Your task to perform on an android device: Clear the cart on costco.com. Add "logitech g502" to the cart on costco.com, then select checkout. Image 0: 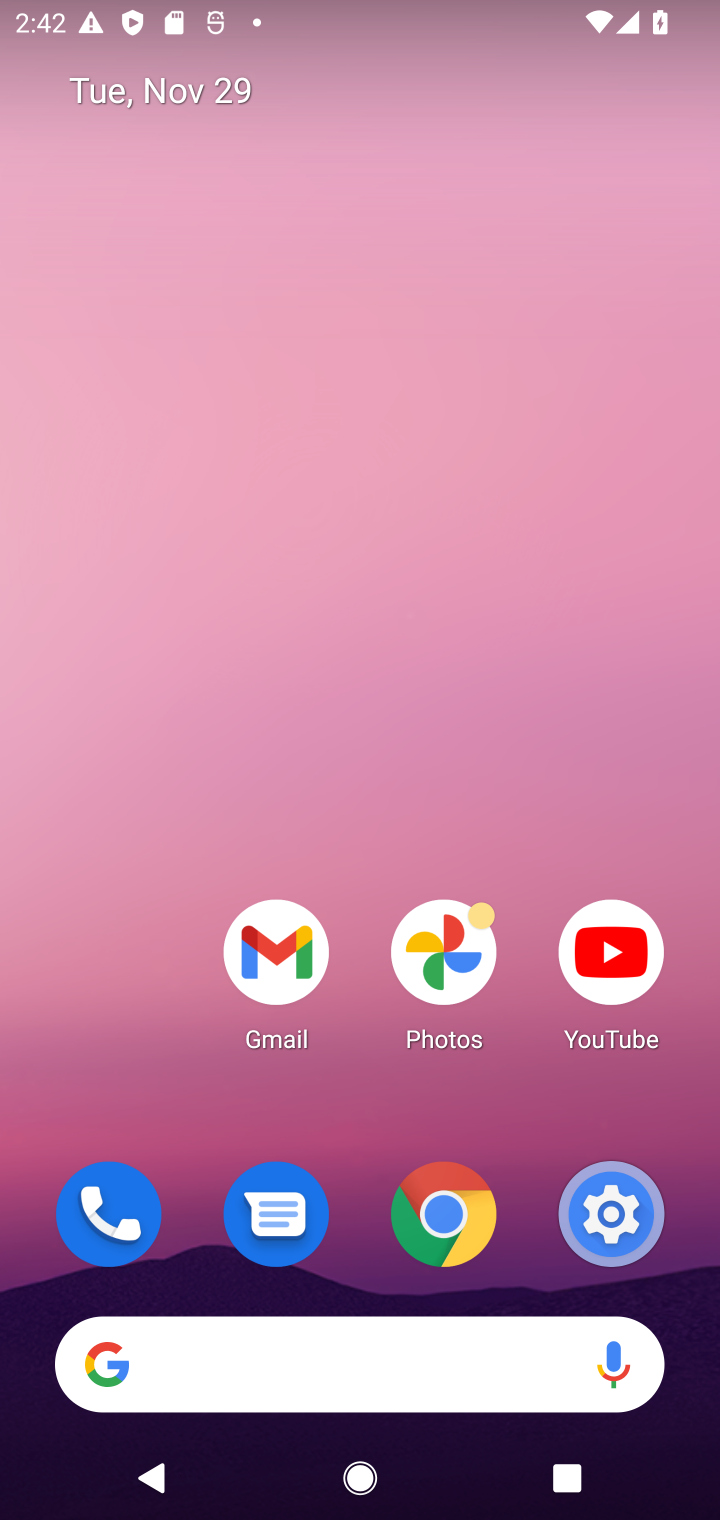
Step 0: click (304, 1395)
Your task to perform on an android device: Clear the cart on costco.com. Add "logitech g502" to the cart on costco.com, then select checkout. Image 1: 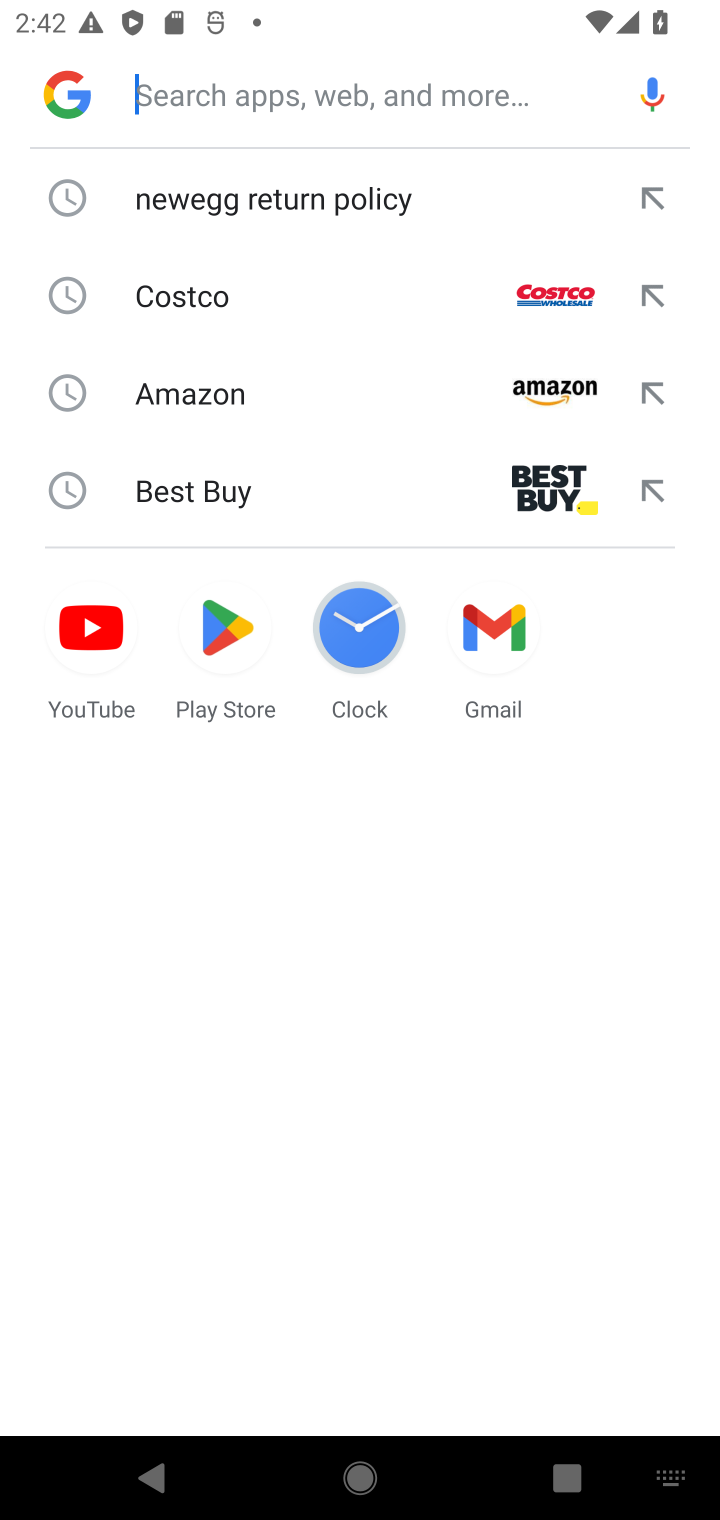
Step 1: type "costco.com"
Your task to perform on an android device: Clear the cart on costco.com. Add "logitech g502" to the cart on costco.com, then select checkout. Image 2: 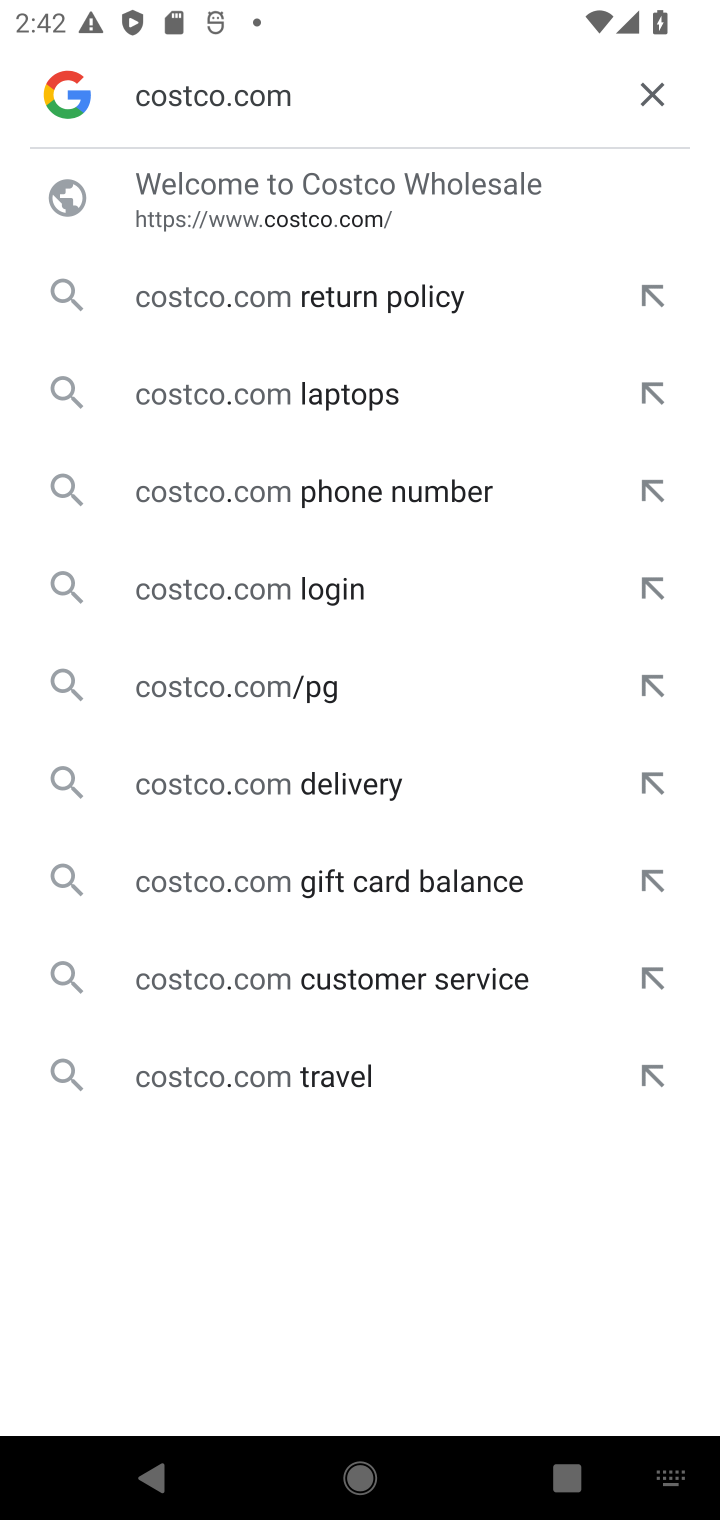
Step 2: click (304, 234)
Your task to perform on an android device: Clear the cart on costco.com. Add "logitech g502" to the cart on costco.com, then select checkout. Image 3: 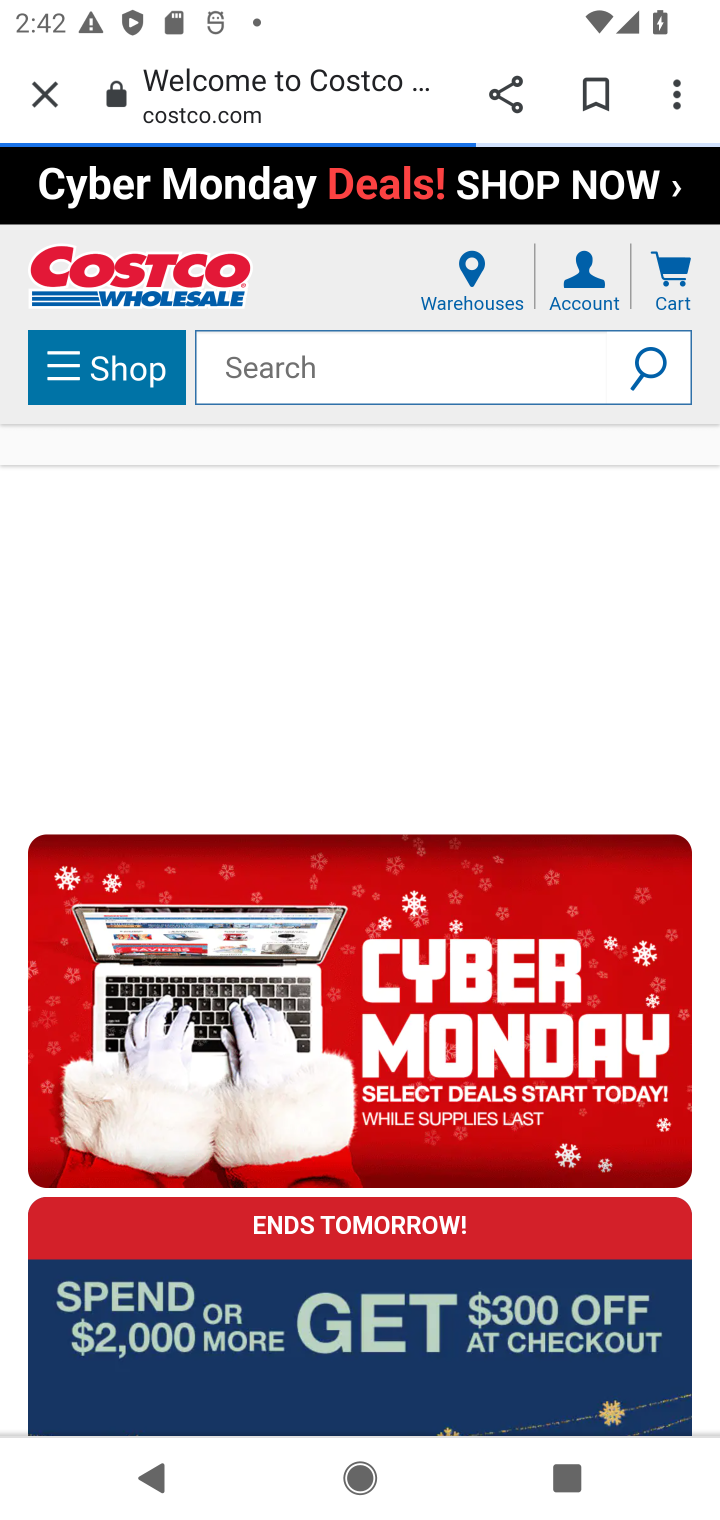
Step 3: click (426, 366)
Your task to perform on an android device: Clear the cart on costco.com. Add "logitech g502" to the cart on costco.com, then select checkout. Image 4: 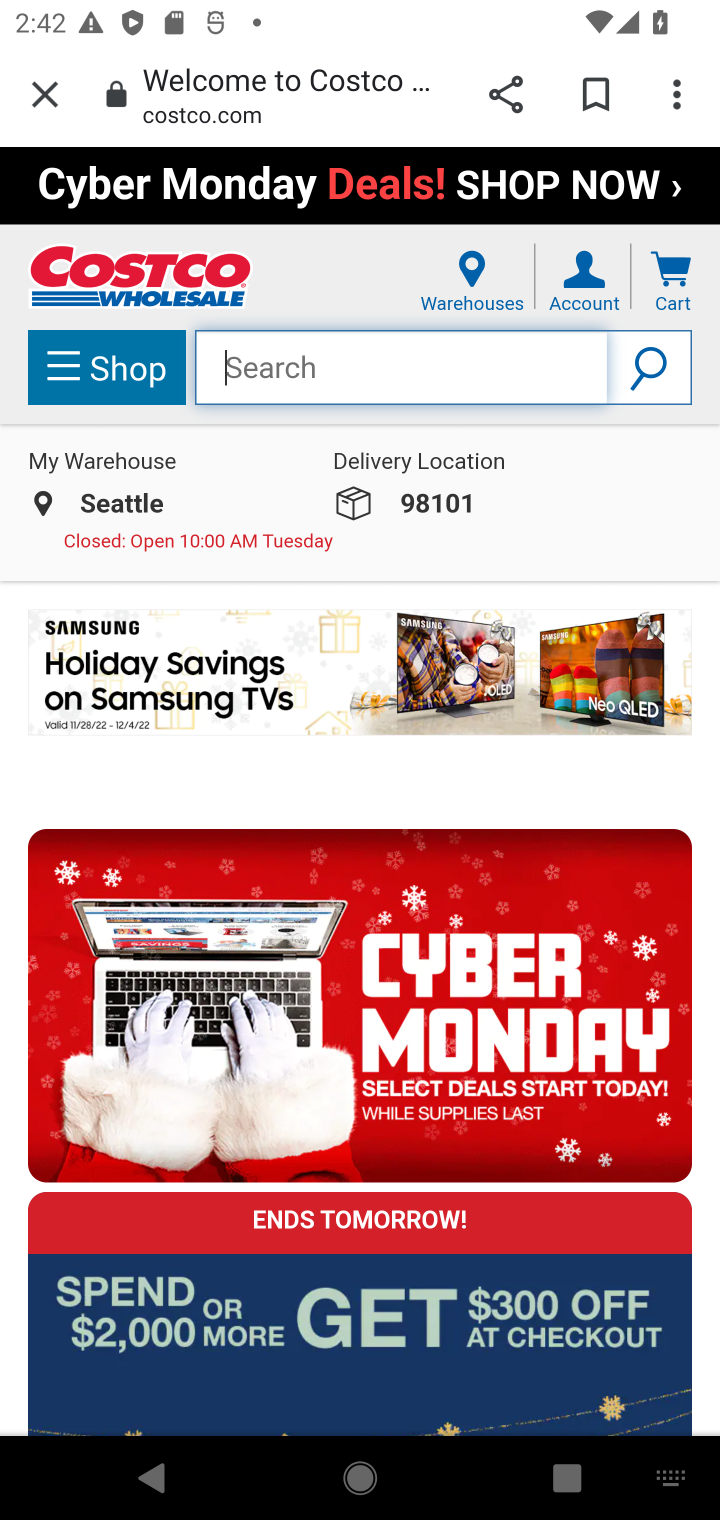
Step 4: type "logitech g502"
Your task to perform on an android device: Clear the cart on costco.com. Add "logitech g502" to the cart on costco.com, then select checkout. Image 5: 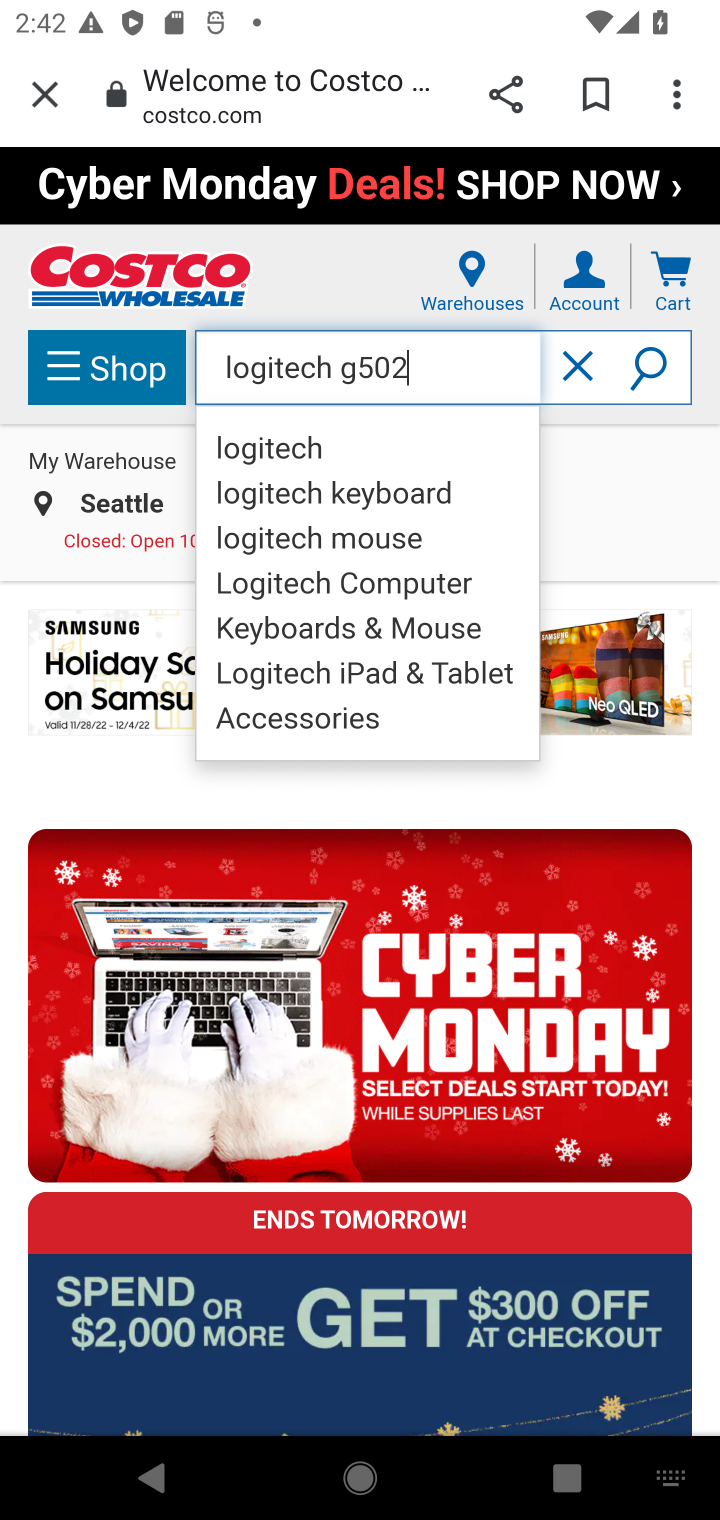
Step 5: click (647, 396)
Your task to perform on an android device: Clear the cart on costco.com. Add "logitech g502" to the cart on costco.com, then select checkout. Image 6: 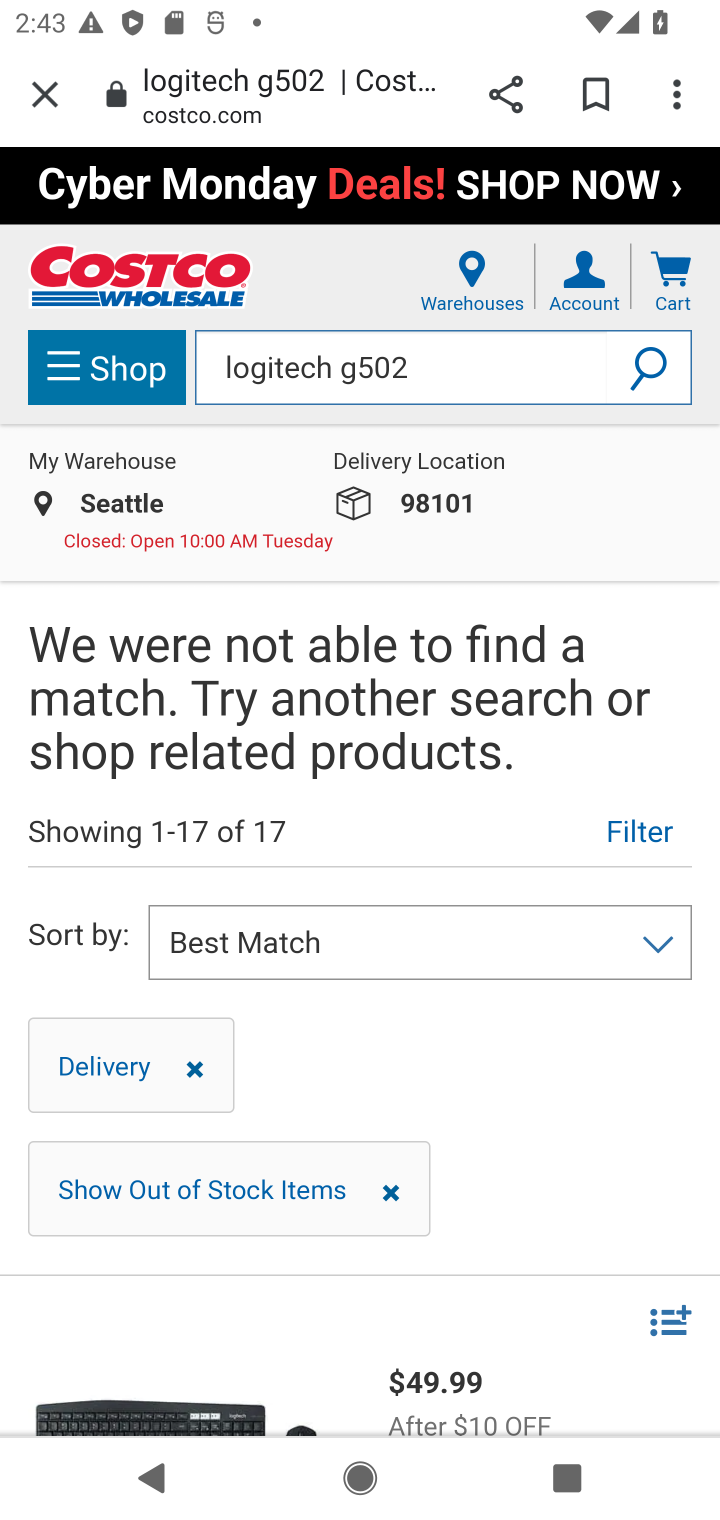
Step 6: task complete